Your task to perform on an android device: Search for Mexican restaurants on Maps Image 0: 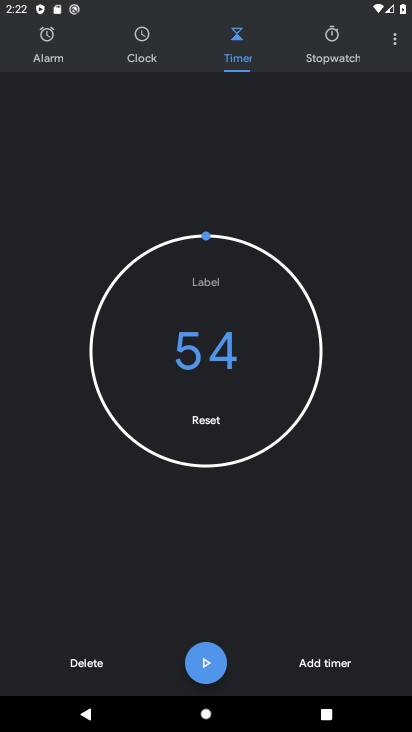
Step 0: press home button
Your task to perform on an android device: Search for Mexican restaurants on Maps Image 1: 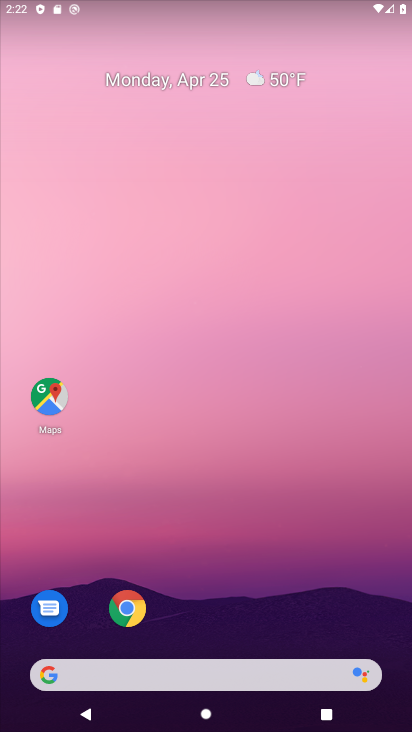
Step 1: click (45, 398)
Your task to perform on an android device: Search for Mexican restaurants on Maps Image 2: 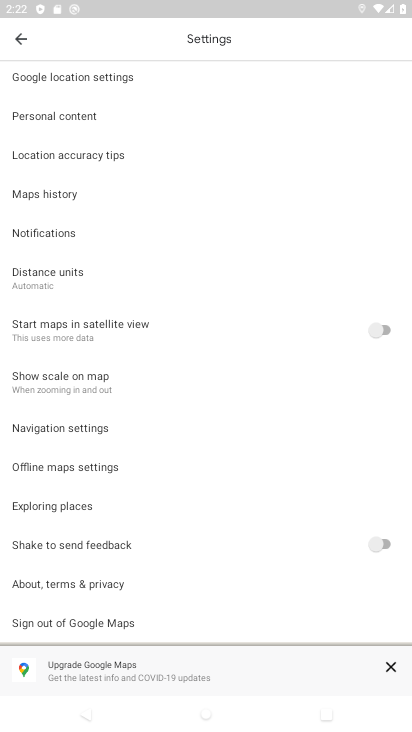
Step 2: click (16, 39)
Your task to perform on an android device: Search for Mexican restaurants on Maps Image 3: 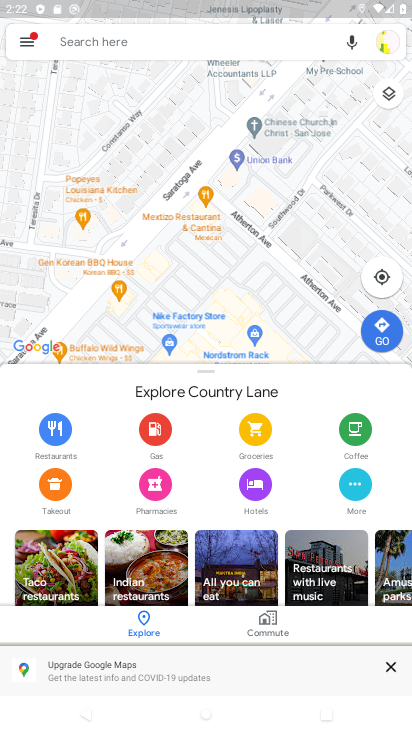
Step 3: click (208, 33)
Your task to perform on an android device: Search for Mexican restaurants on Maps Image 4: 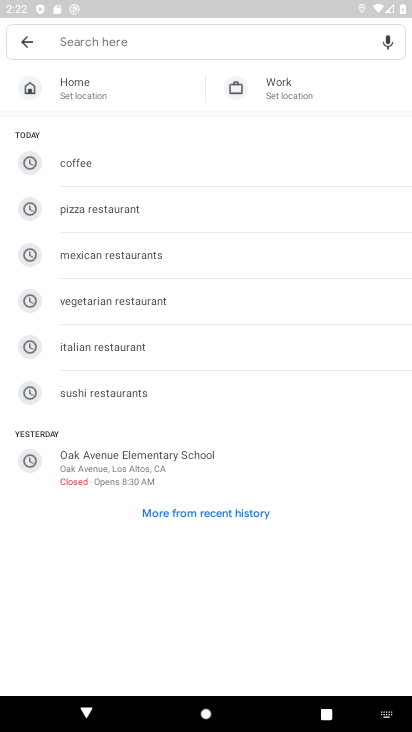
Step 4: type "Mexican restaurants"
Your task to perform on an android device: Search for Mexican restaurants on Maps Image 5: 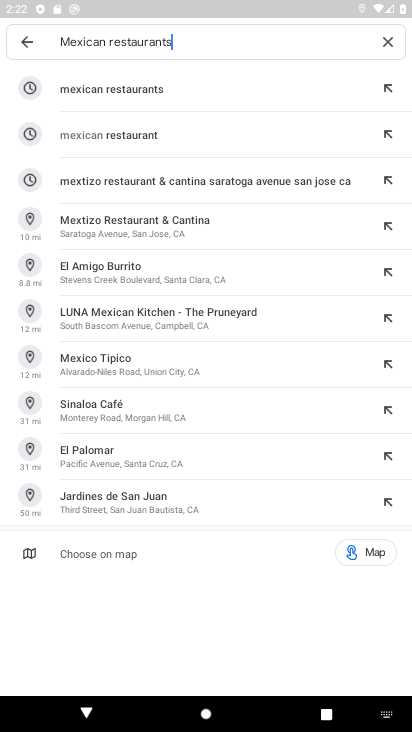
Step 5: click (166, 82)
Your task to perform on an android device: Search for Mexican restaurants on Maps Image 6: 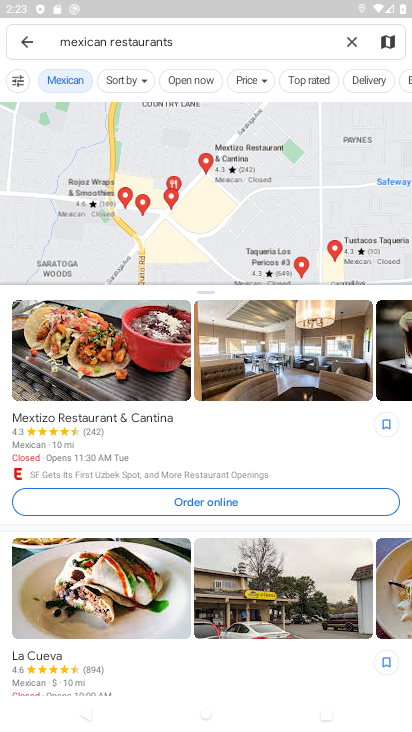
Step 6: task complete